Your task to perform on an android device: Open notification settings Image 0: 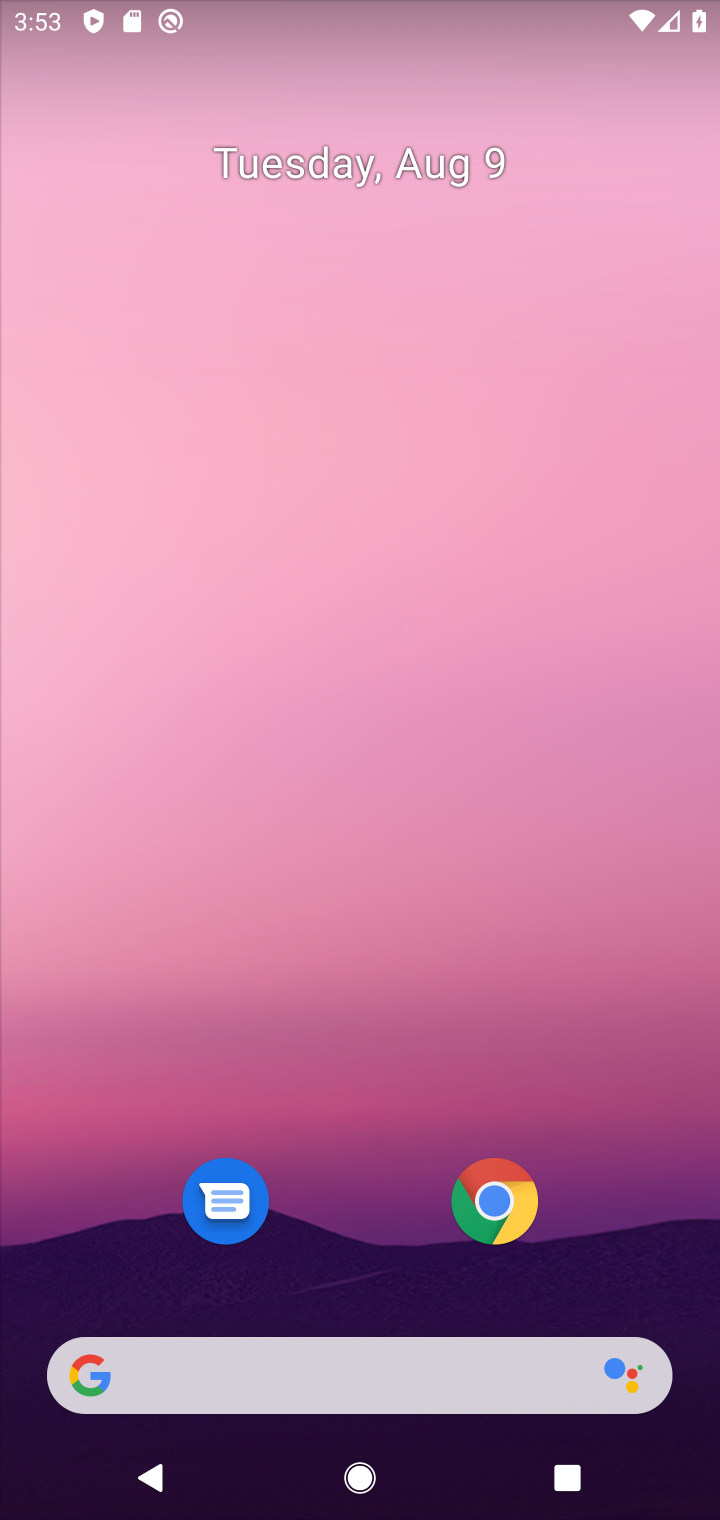
Step 0: press home button
Your task to perform on an android device: Open notification settings Image 1: 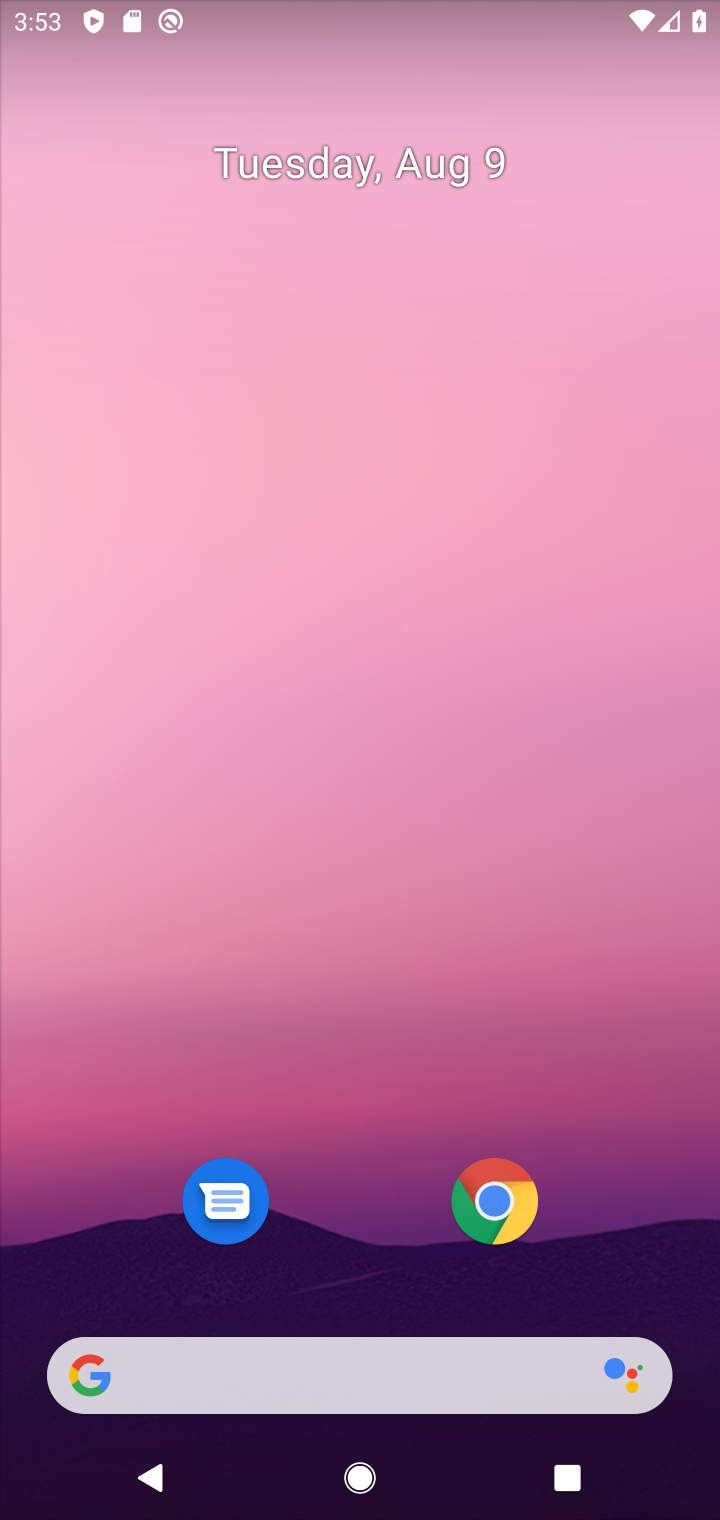
Step 1: drag from (390, 1197) to (410, 26)
Your task to perform on an android device: Open notification settings Image 2: 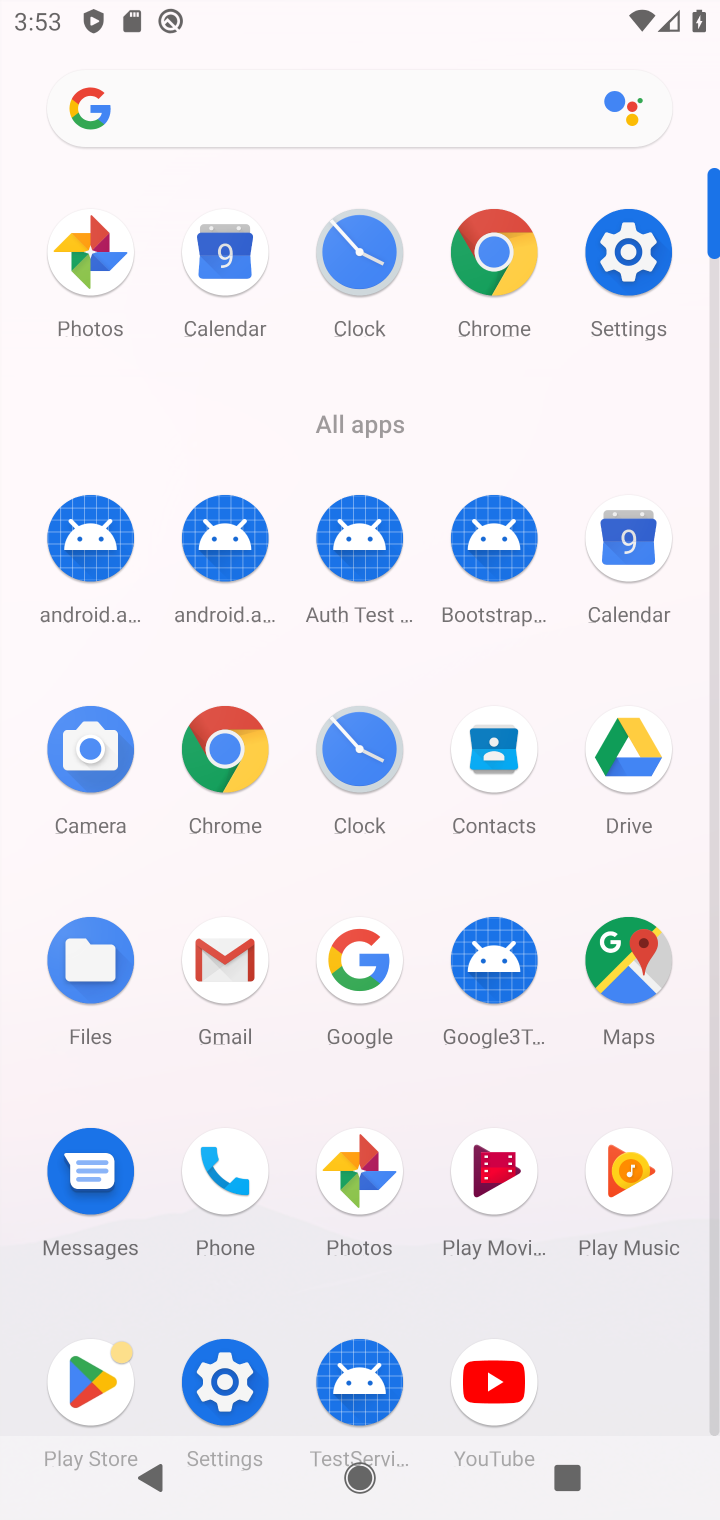
Step 2: click (629, 258)
Your task to perform on an android device: Open notification settings Image 3: 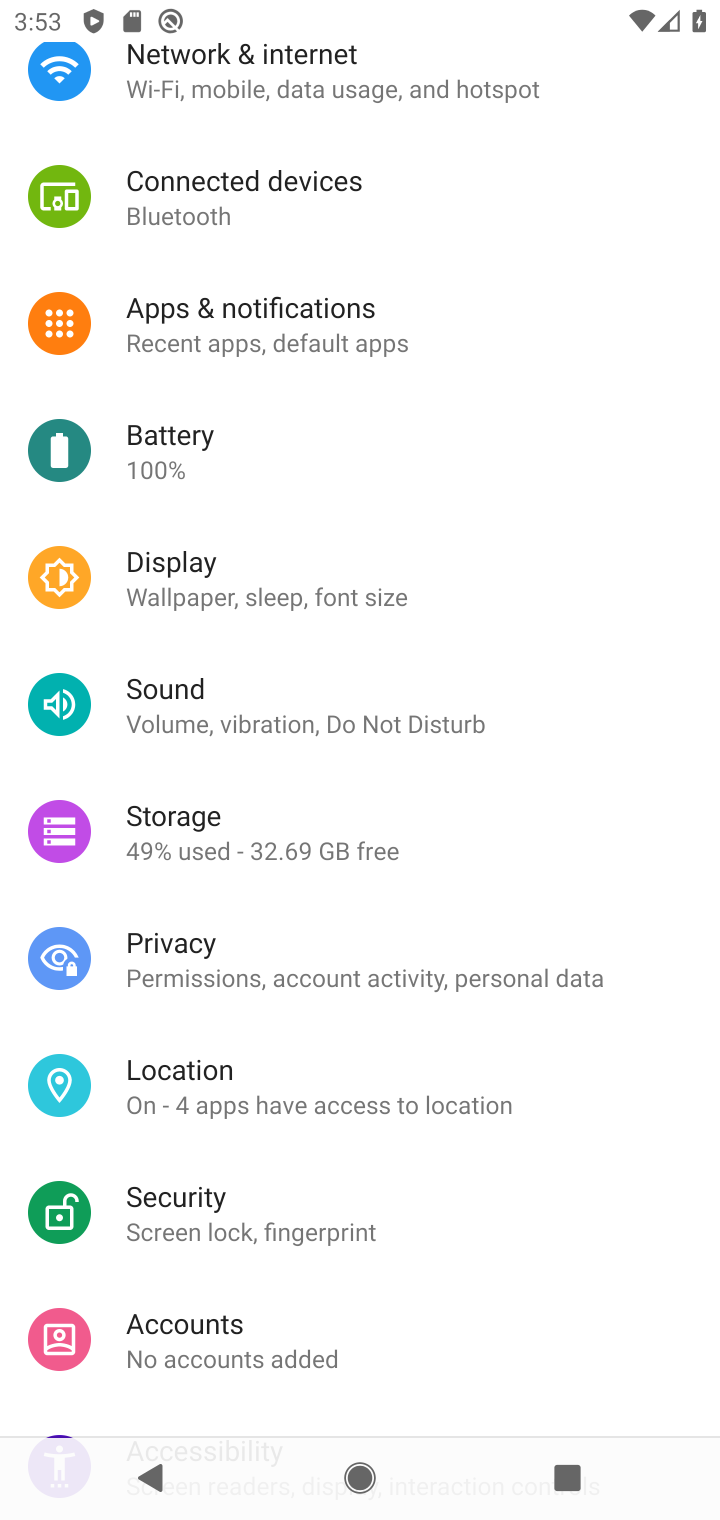
Step 3: click (364, 328)
Your task to perform on an android device: Open notification settings Image 4: 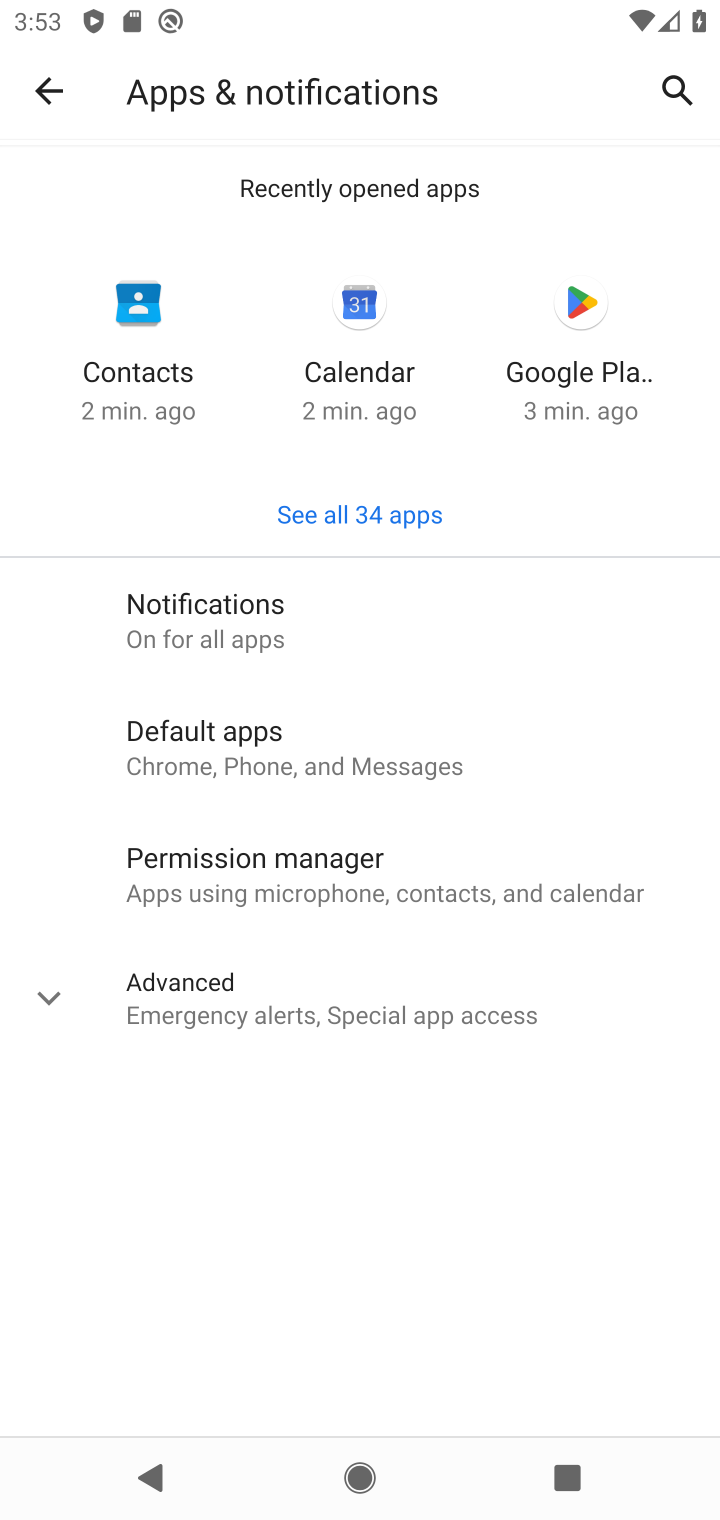
Step 4: click (242, 612)
Your task to perform on an android device: Open notification settings Image 5: 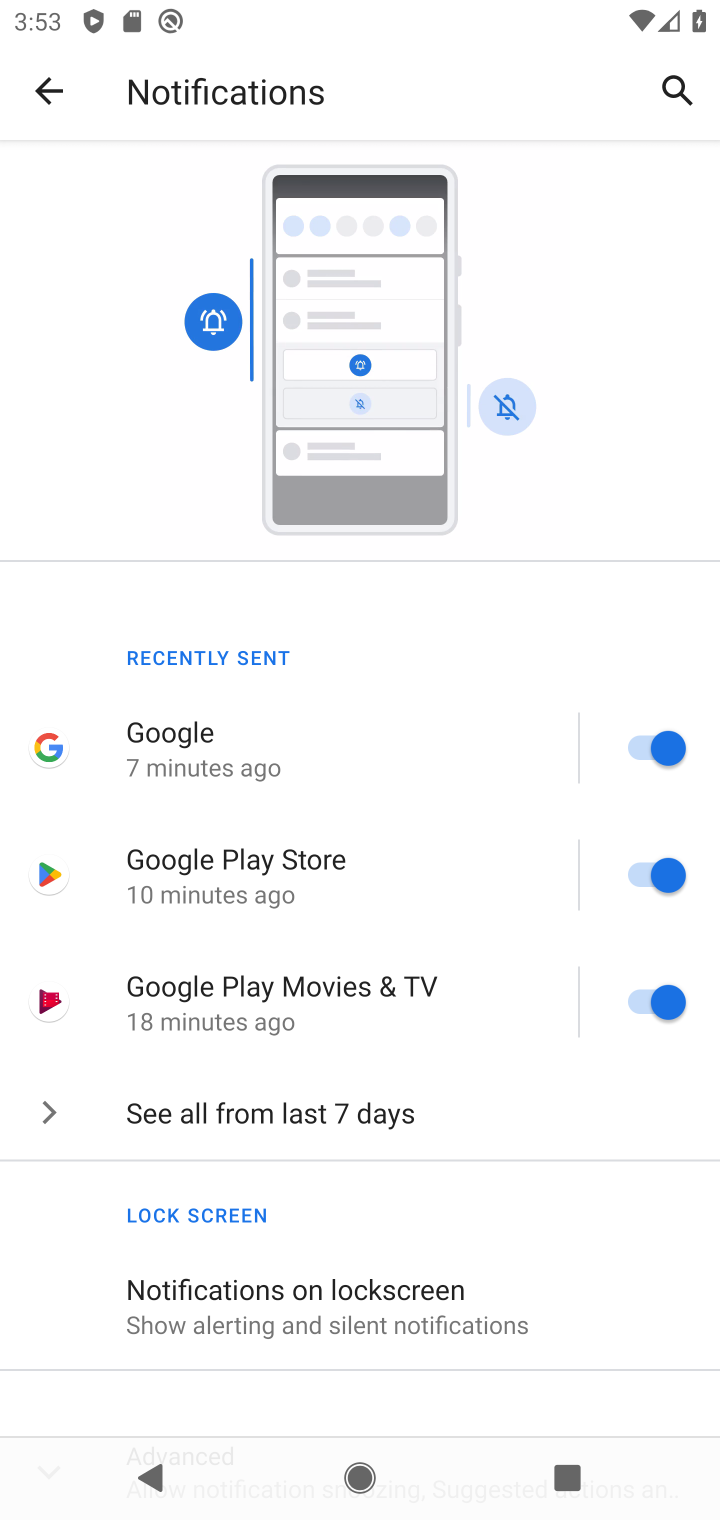
Step 5: task complete